Your task to perform on an android device: Clear all items from cart on ebay.com. Image 0: 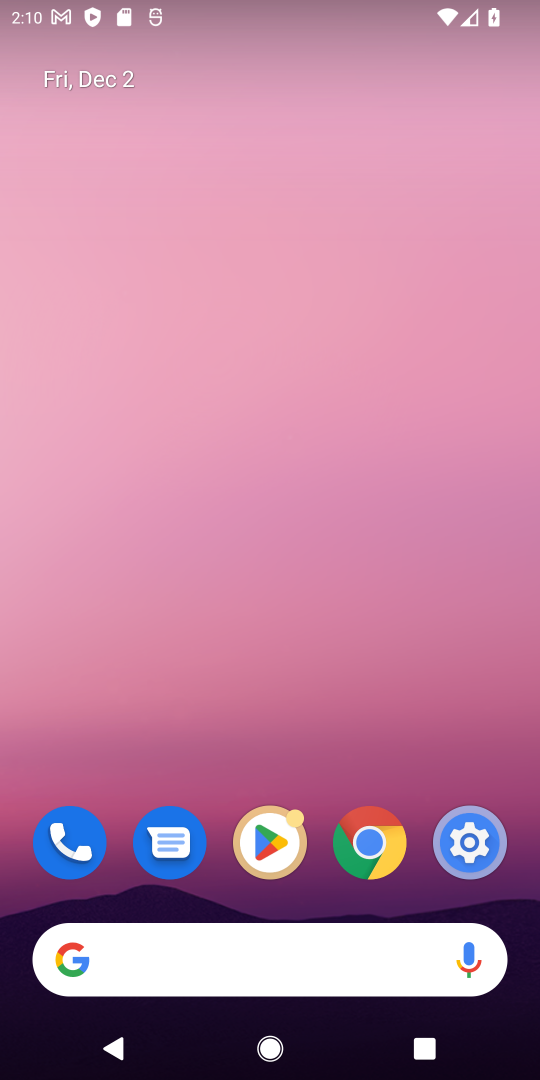
Step 0: task complete